Your task to perform on an android device: all mails in gmail Image 0: 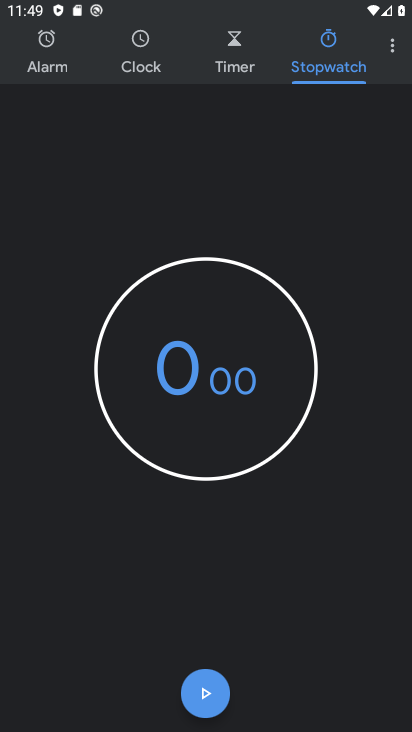
Step 0: press home button
Your task to perform on an android device: all mails in gmail Image 1: 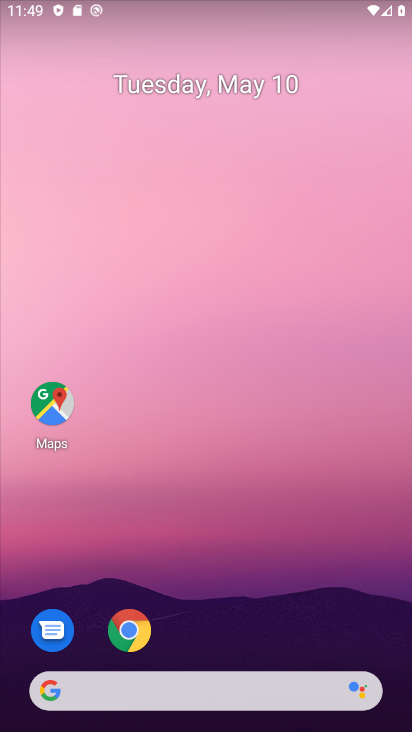
Step 1: drag from (215, 671) to (188, 3)
Your task to perform on an android device: all mails in gmail Image 2: 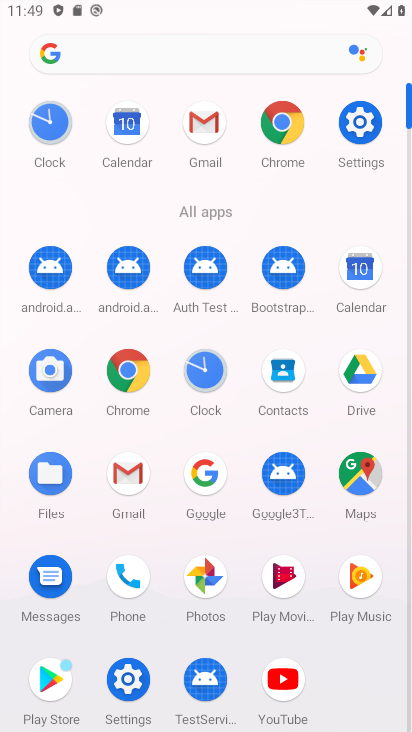
Step 2: click (122, 472)
Your task to perform on an android device: all mails in gmail Image 3: 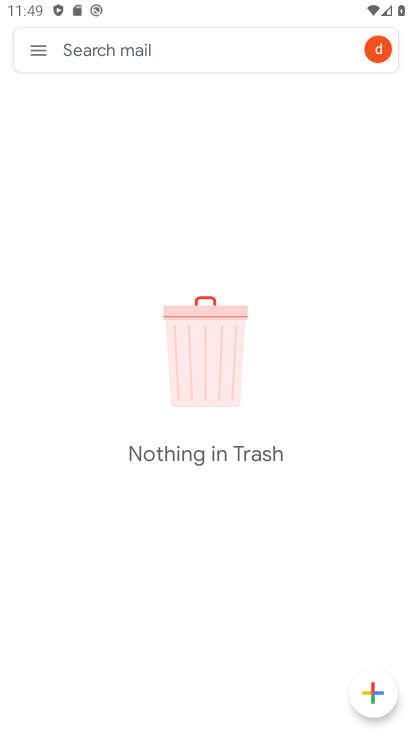
Step 3: click (41, 55)
Your task to perform on an android device: all mails in gmail Image 4: 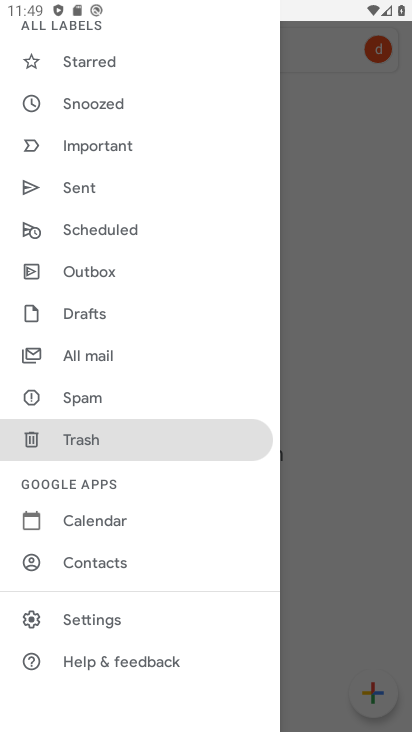
Step 4: click (122, 342)
Your task to perform on an android device: all mails in gmail Image 5: 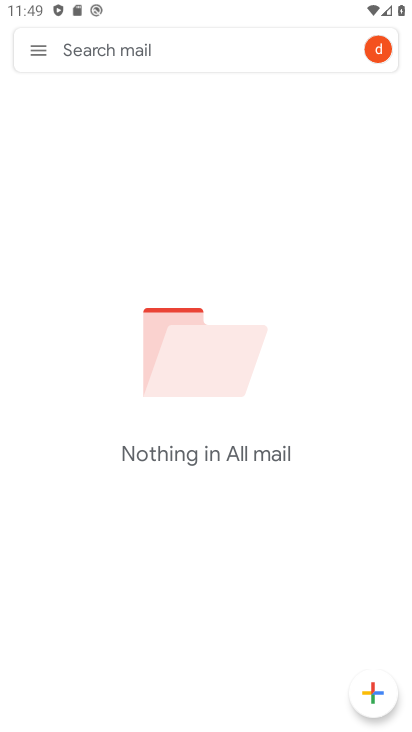
Step 5: task complete